Your task to perform on an android device: What's the news in Argentina? Image 0: 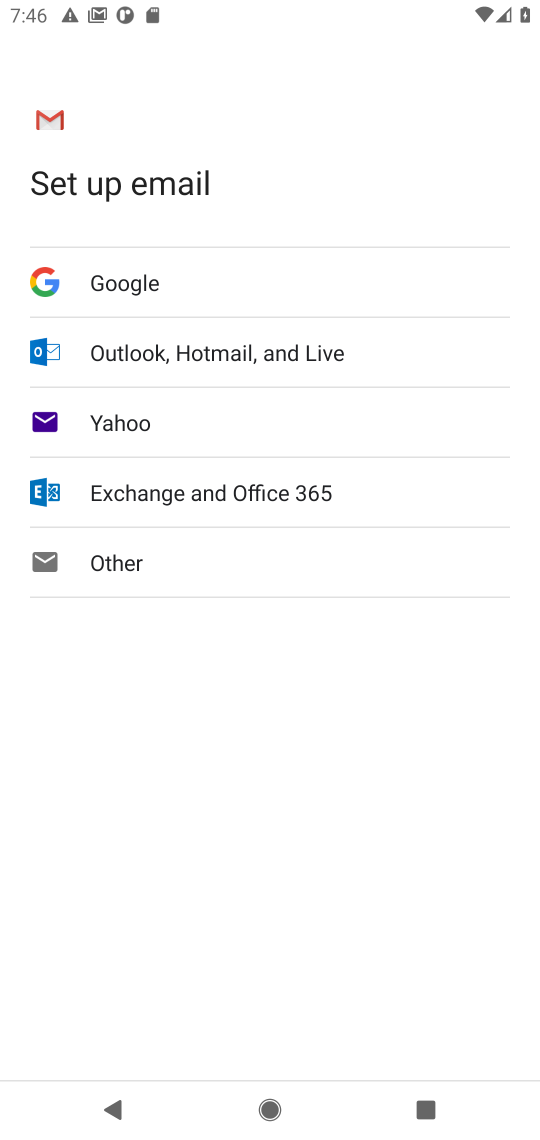
Step 0: press home button
Your task to perform on an android device: What's the news in Argentina? Image 1: 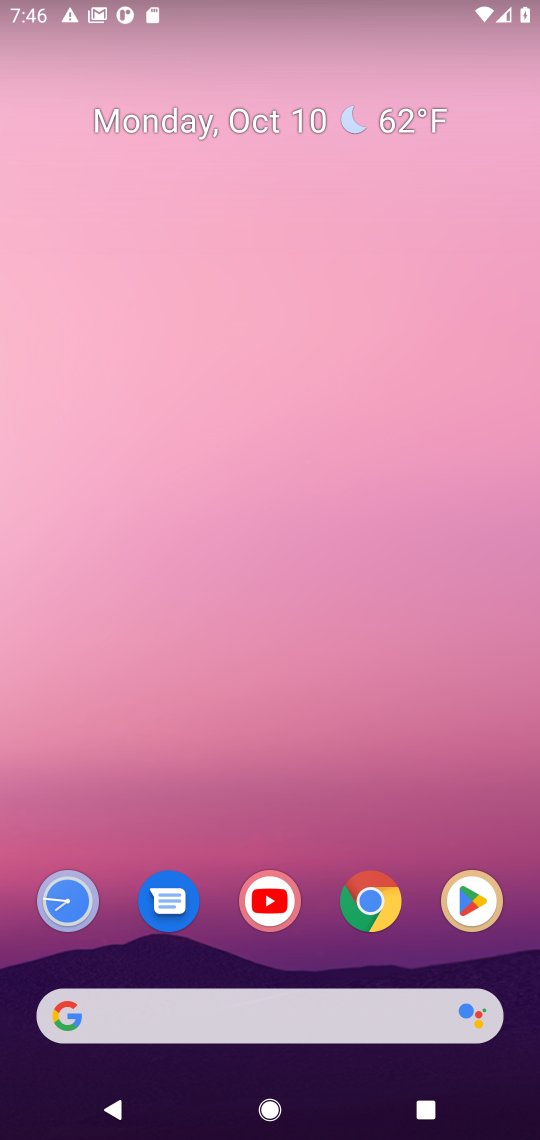
Step 1: drag from (317, 994) to (415, 166)
Your task to perform on an android device: What's the news in Argentina? Image 2: 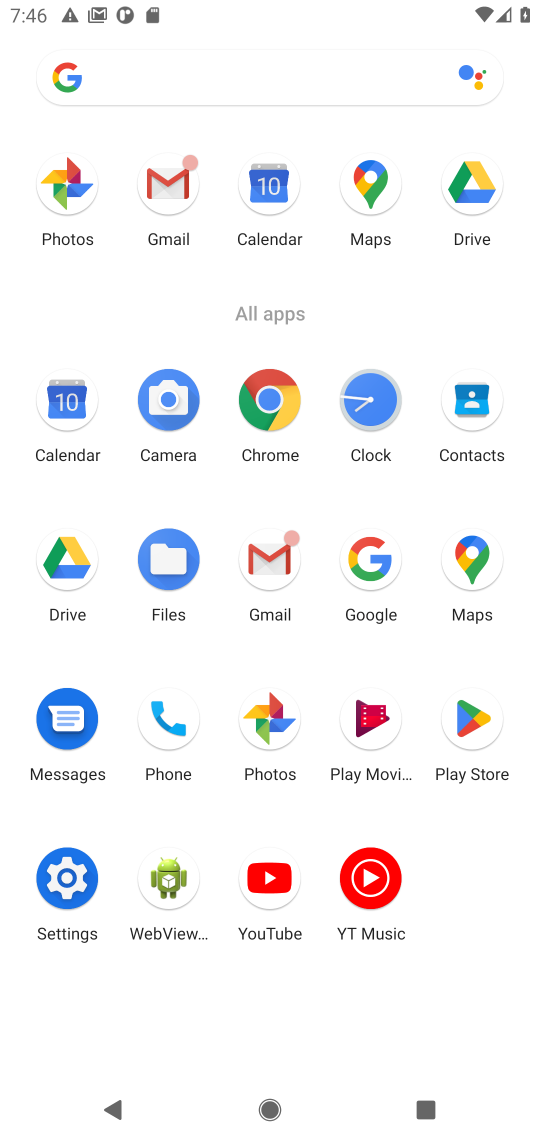
Step 2: click (380, 644)
Your task to perform on an android device: What's the news in Argentina? Image 3: 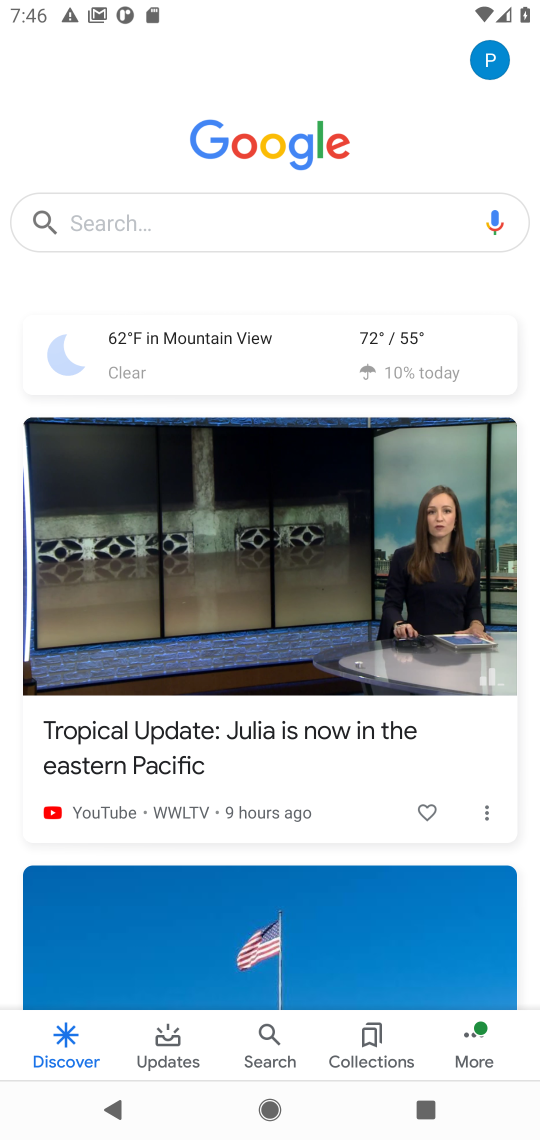
Step 3: click (367, 233)
Your task to perform on an android device: What's the news in Argentina? Image 4: 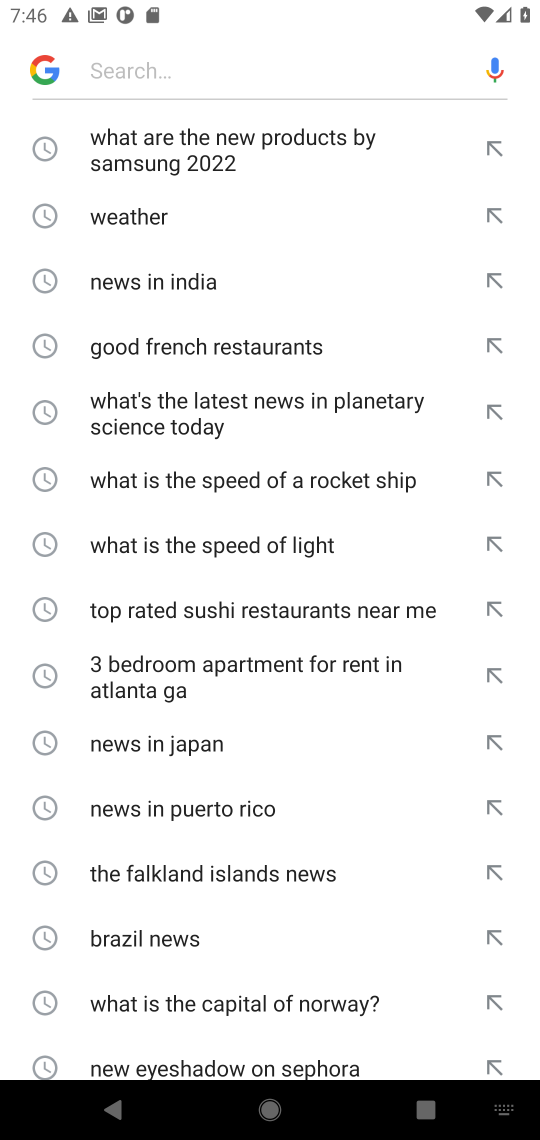
Step 4: type "news in Argentina?"
Your task to perform on an android device: What's the news in Argentina? Image 5: 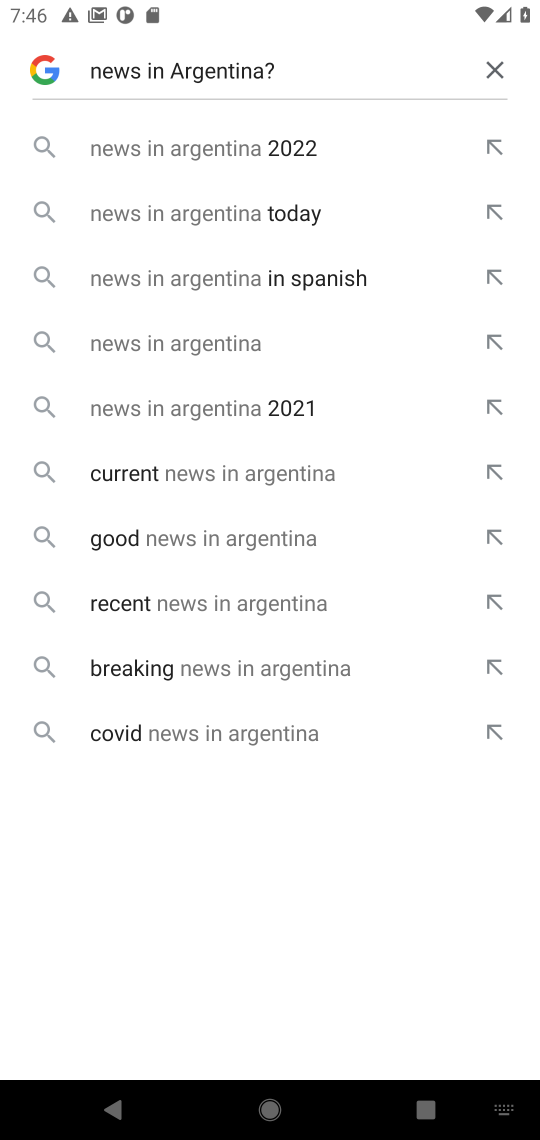
Step 5: click (249, 209)
Your task to perform on an android device: What's the news in Argentina? Image 6: 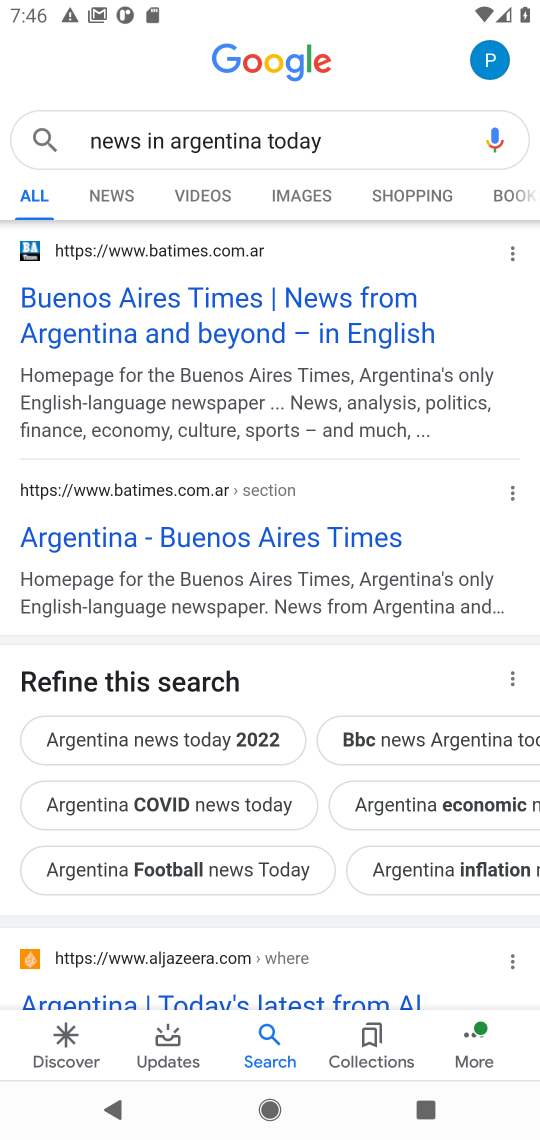
Step 6: click (125, 199)
Your task to perform on an android device: What's the news in Argentina? Image 7: 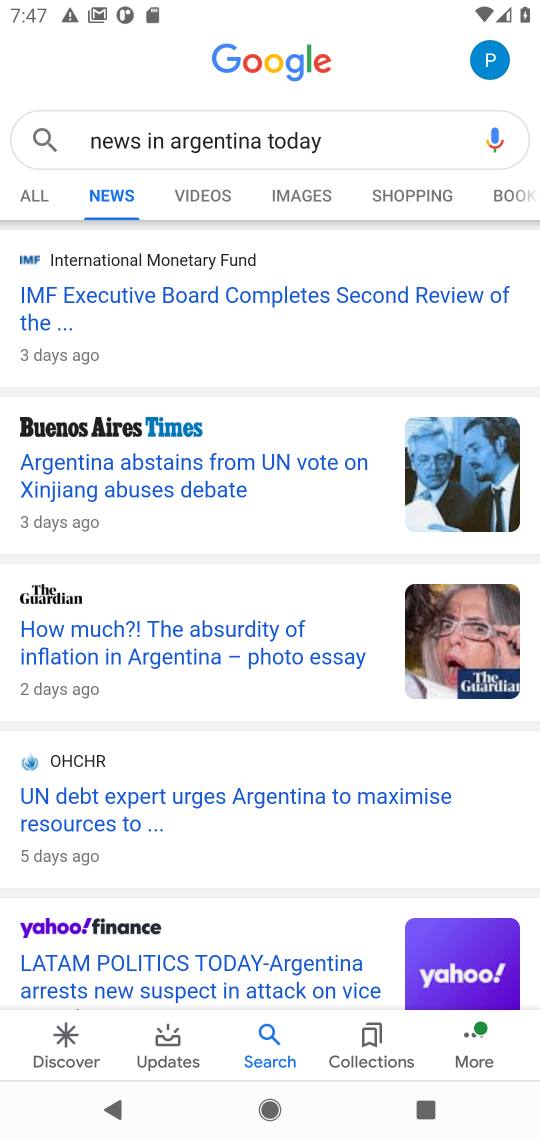
Step 7: task complete